Your task to perform on an android device: Go to notification settings Image 0: 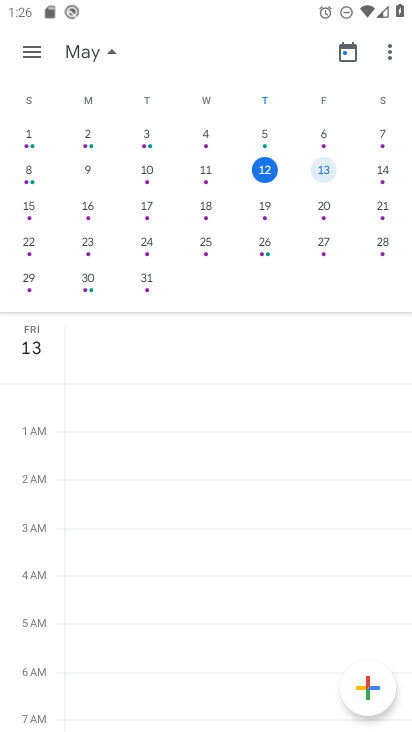
Step 0: press home button
Your task to perform on an android device: Go to notification settings Image 1: 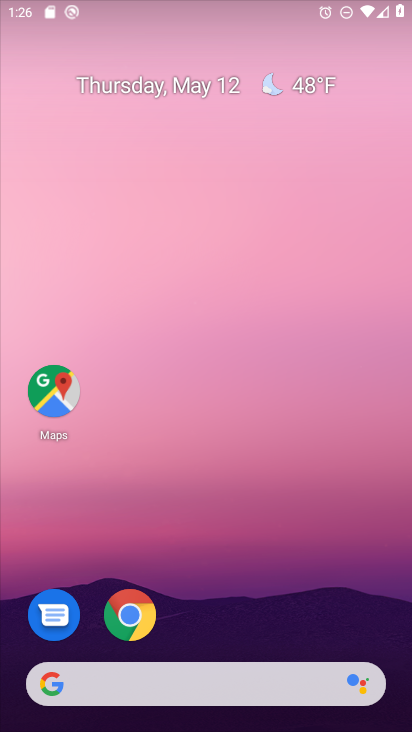
Step 1: drag from (295, 668) to (258, 0)
Your task to perform on an android device: Go to notification settings Image 2: 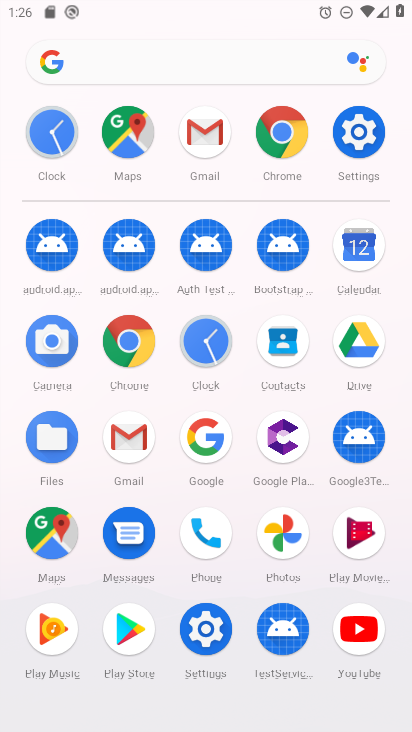
Step 2: click (359, 133)
Your task to perform on an android device: Go to notification settings Image 3: 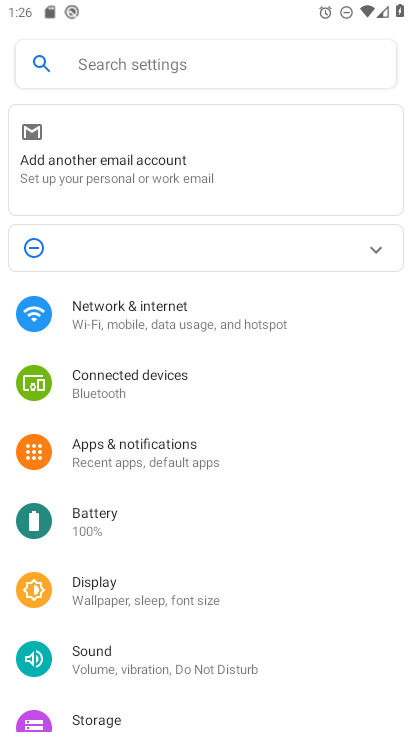
Step 3: click (150, 456)
Your task to perform on an android device: Go to notification settings Image 4: 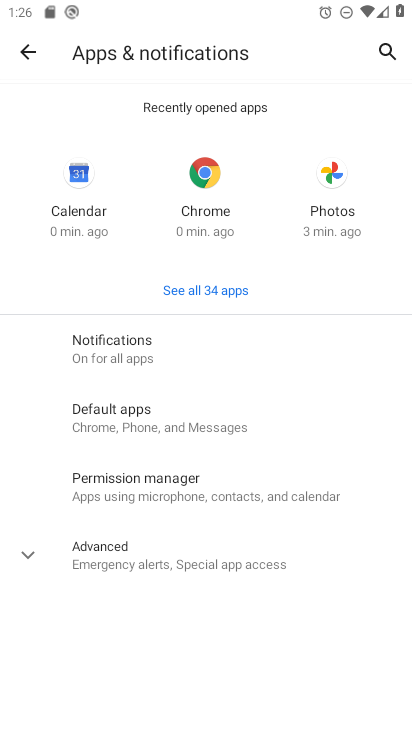
Step 4: task complete